Your task to perform on an android device: turn pop-ups on in chrome Image 0: 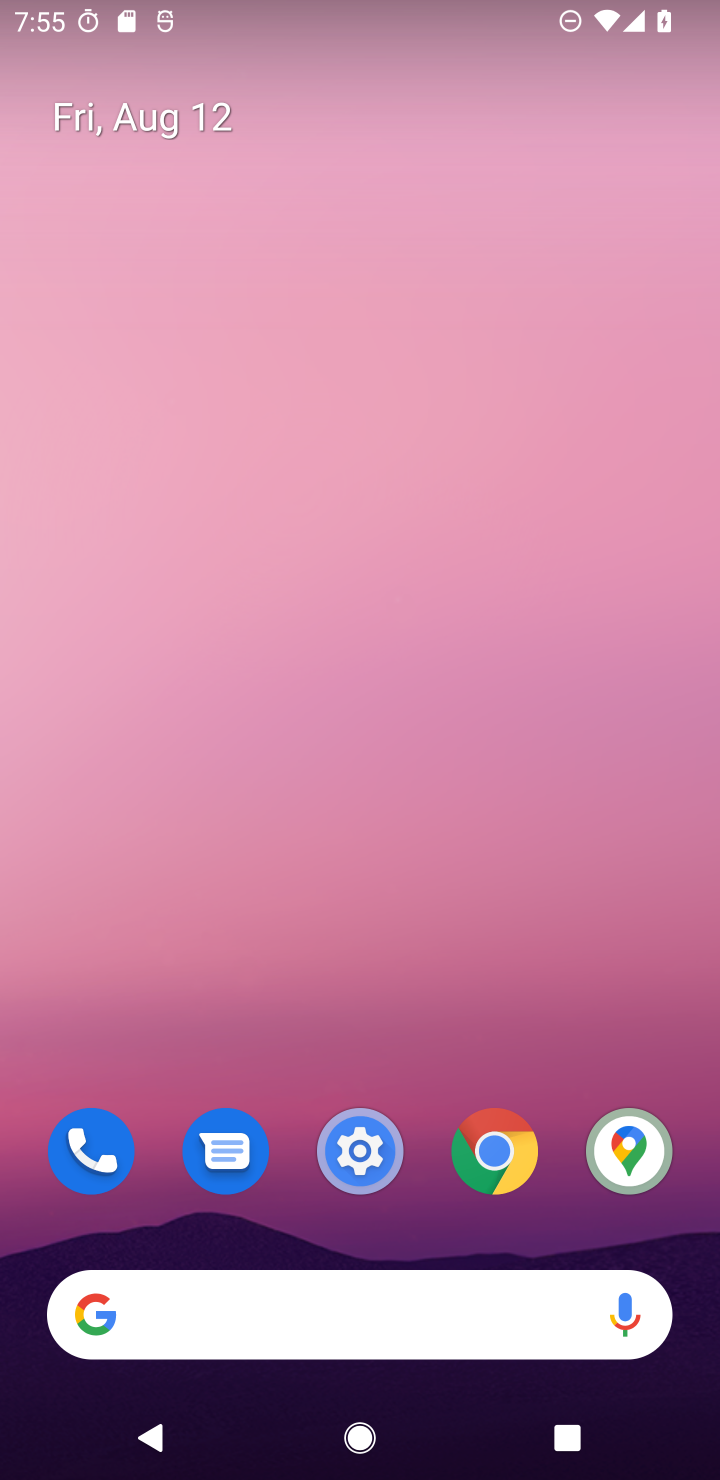
Step 0: drag from (476, 1043) to (360, 1)
Your task to perform on an android device: turn pop-ups on in chrome Image 1: 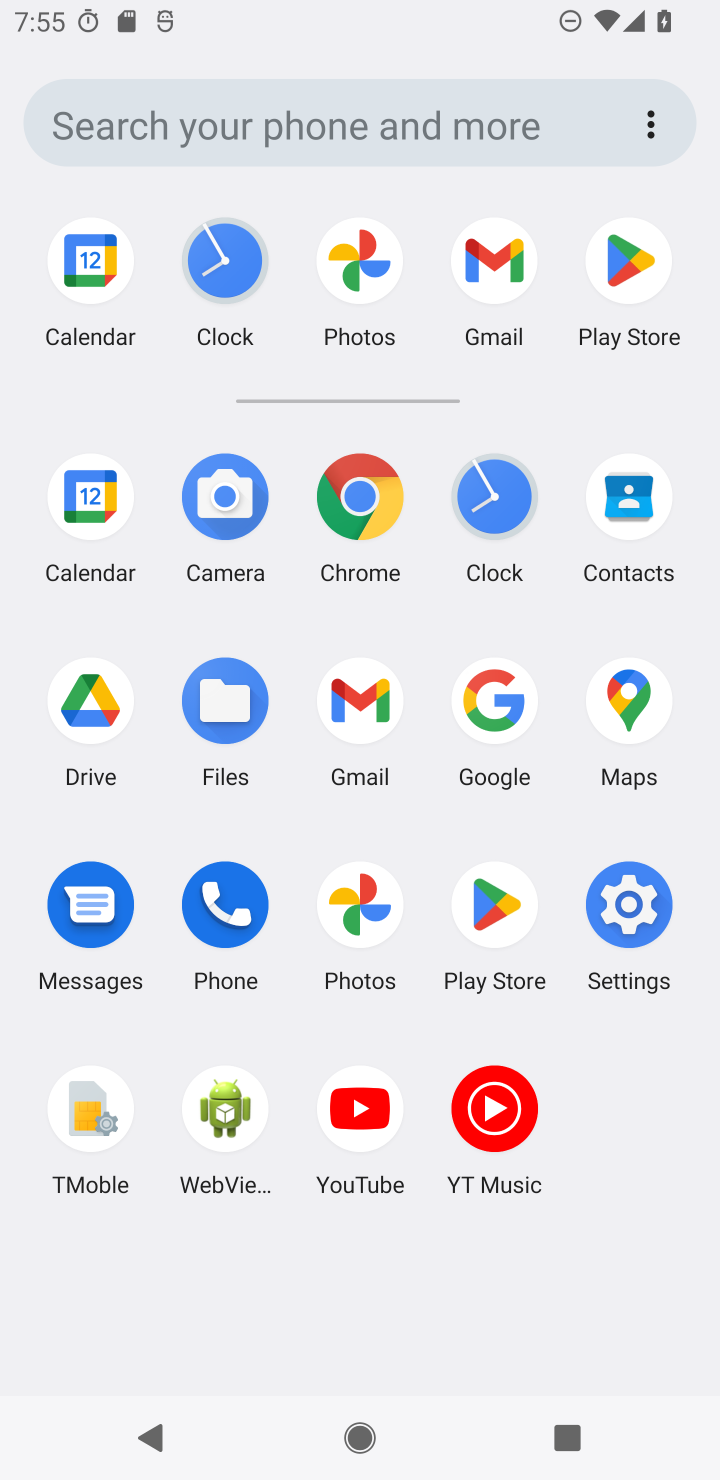
Step 1: click (354, 489)
Your task to perform on an android device: turn pop-ups on in chrome Image 2: 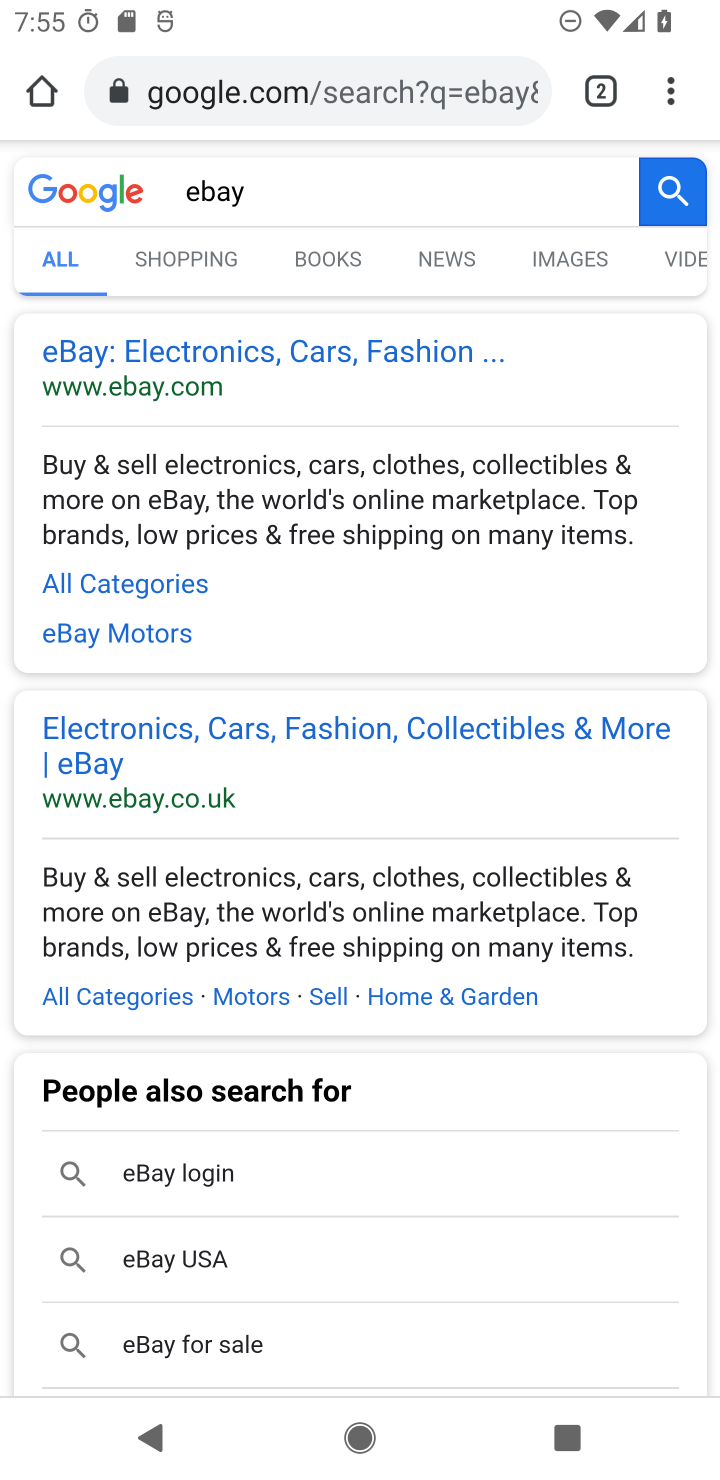
Step 2: drag from (673, 135) to (434, 1272)
Your task to perform on an android device: turn pop-ups on in chrome Image 3: 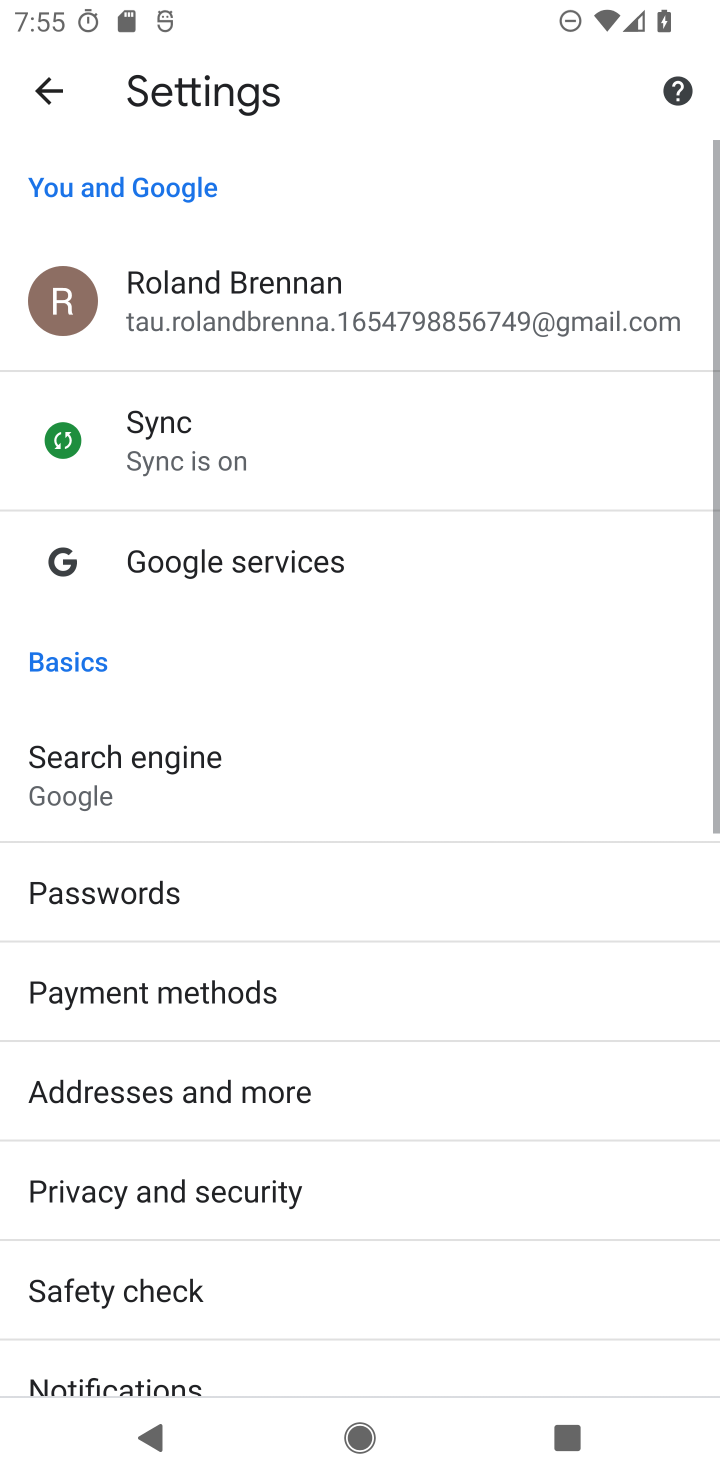
Step 3: drag from (465, 1276) to (541, 106)
Your task to perform on an android device: turn pop-ups on in chrome Image 4: 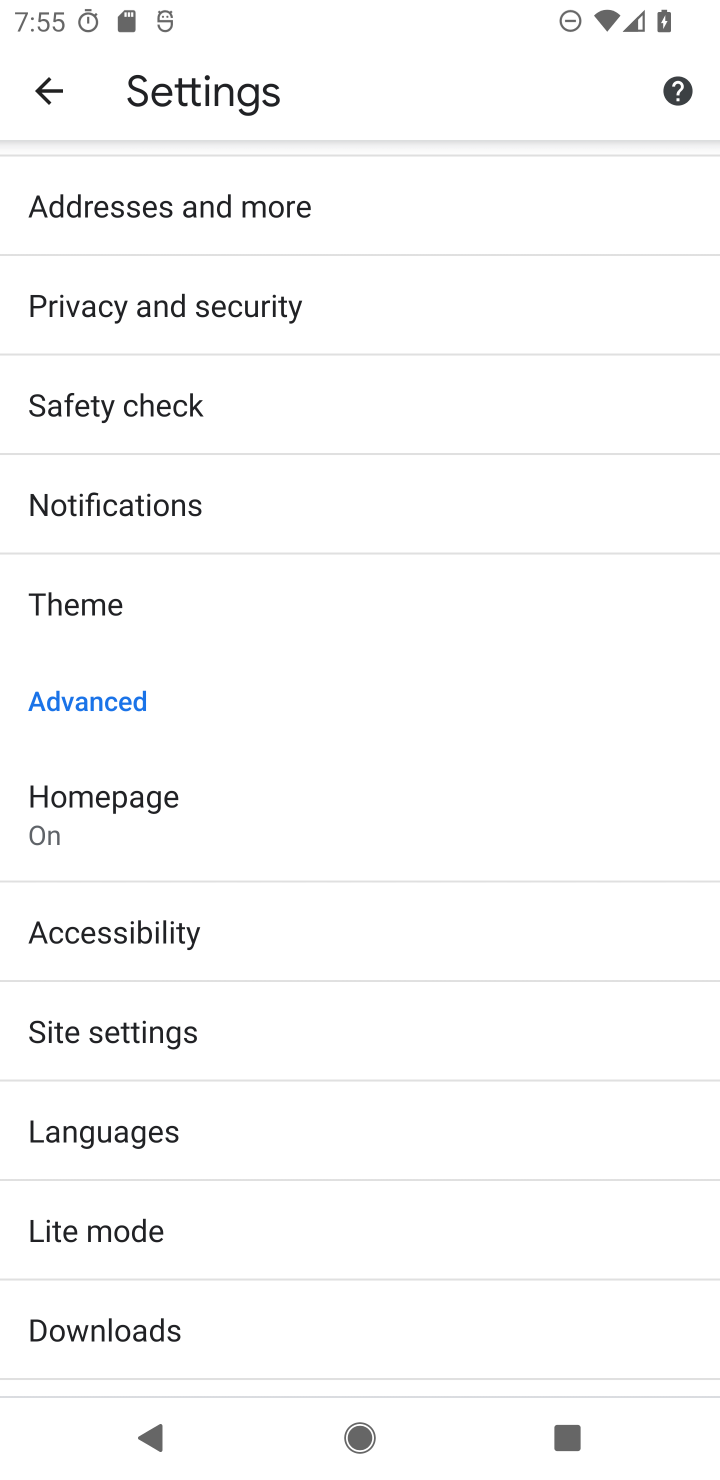
Step 4: drag from (411, 1234) to (427, 443)
Your task to perform on an android device: turn pop-ups on in chrome Image 5: 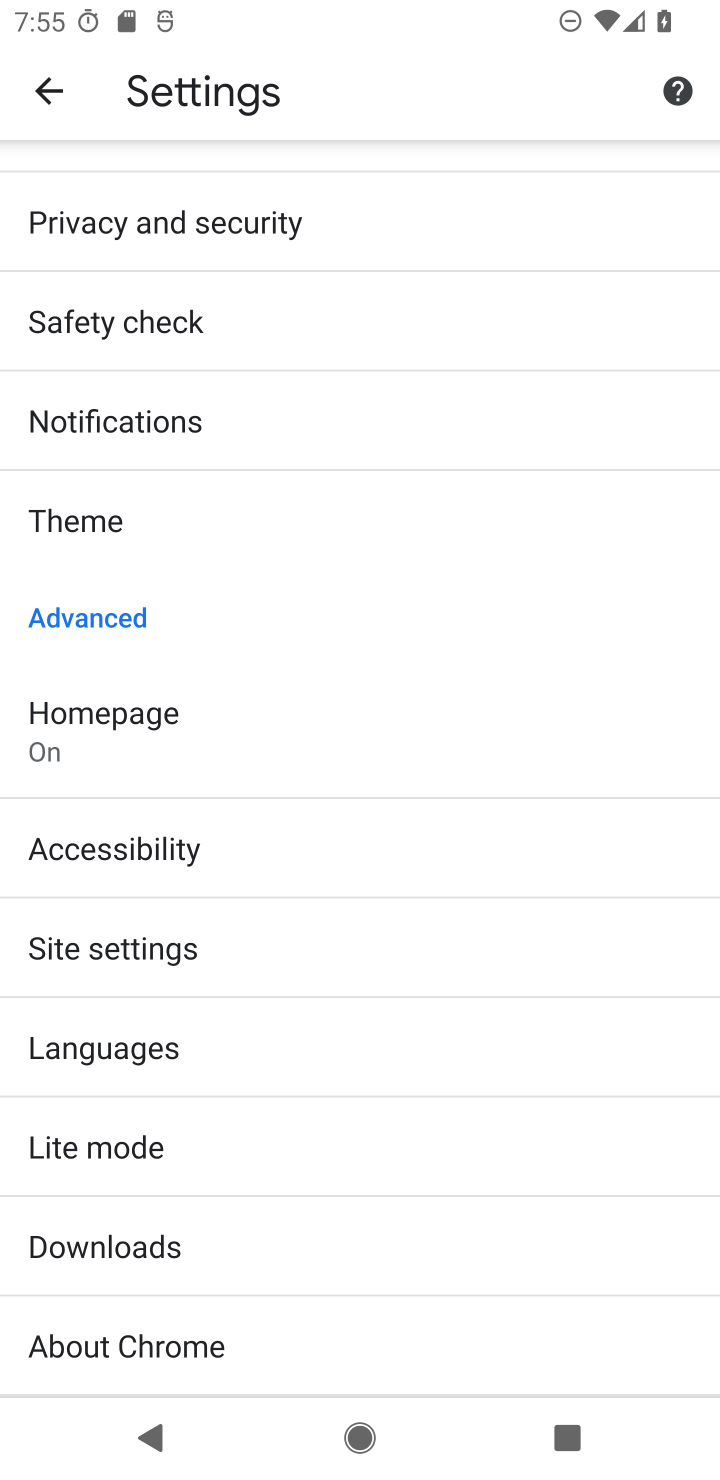
Step 5: drag from (433, 608) to (433, 864)
Your task to perform on an android device: turn pop-ups on in chrome Image 6: 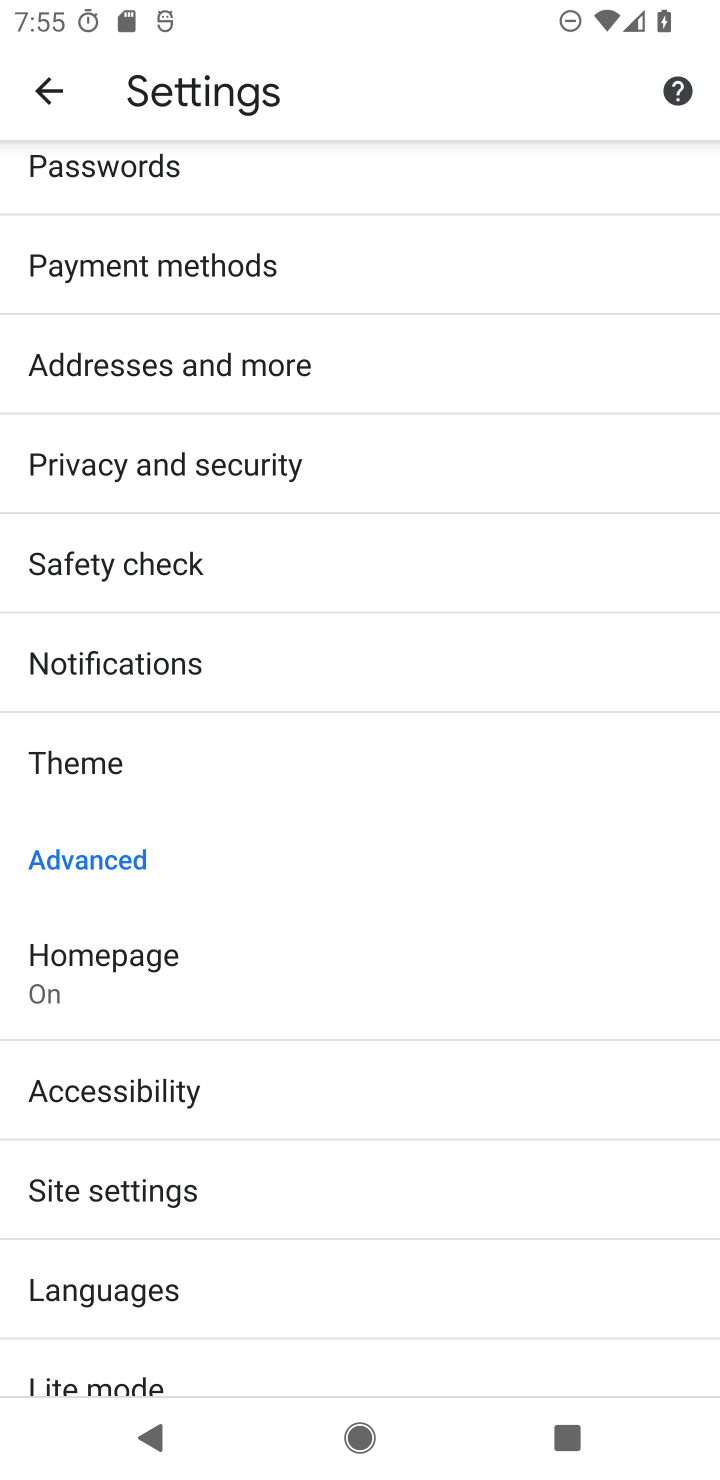
Step 6: click (153, 1203)
Your task to perform on an android device: turn pop-ups on in chrome Image 7: 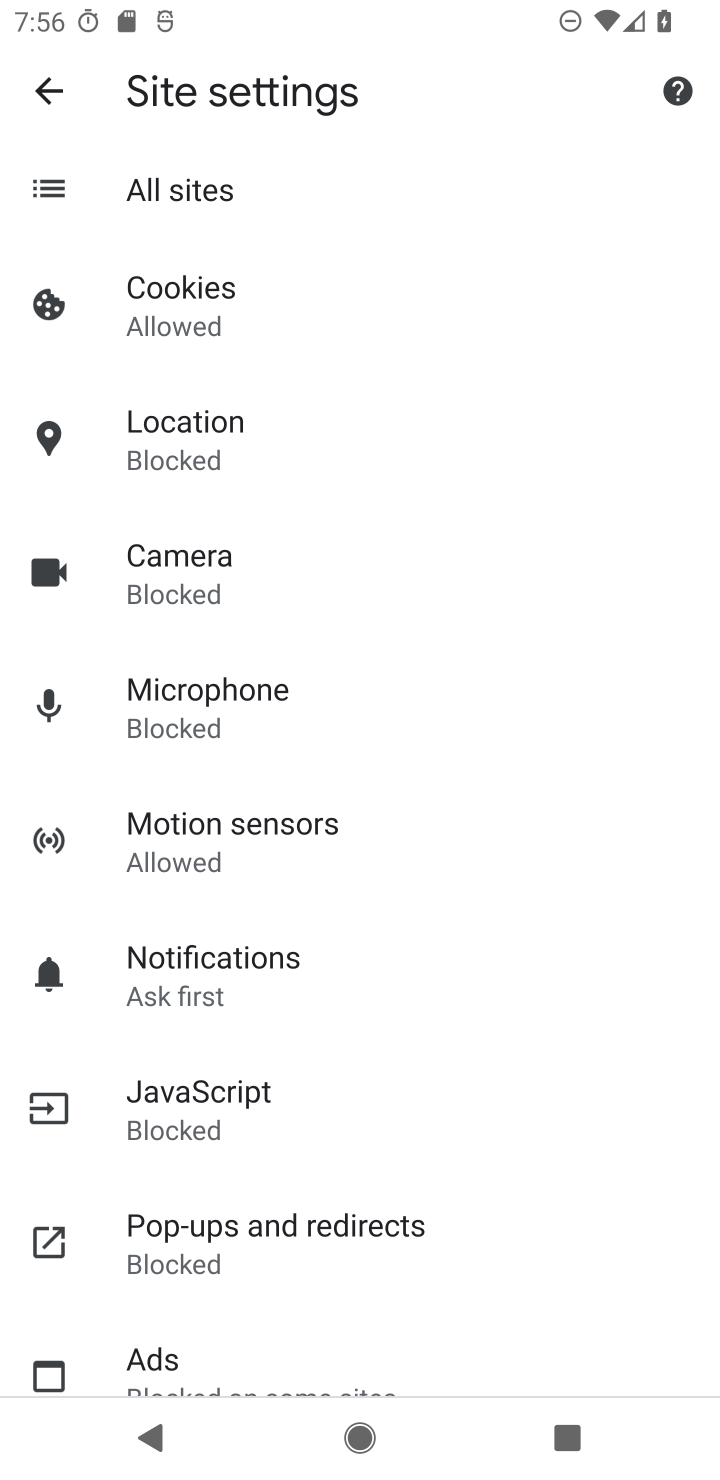
Step 7: click (229, 1251)
Your task to perform on an android device: turn pop-ups on in chrome Image 8: 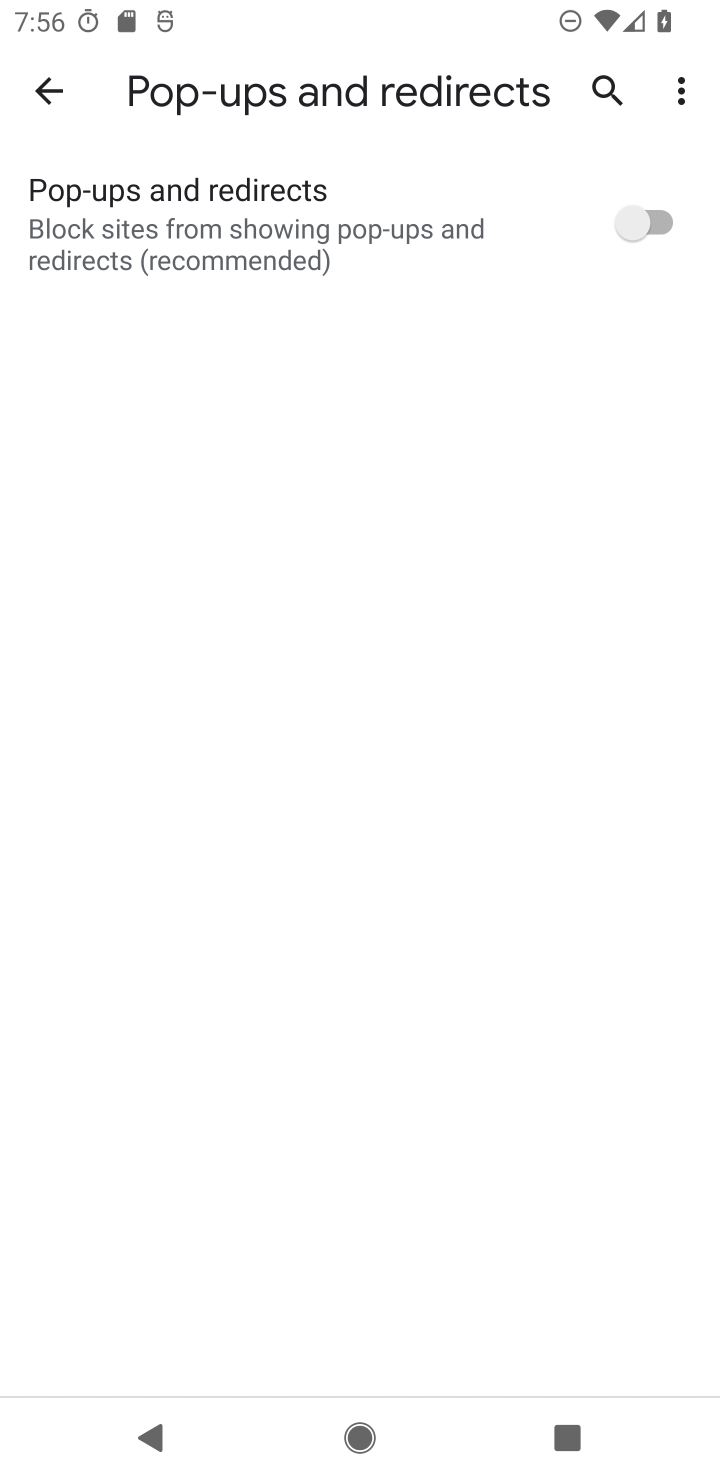
Step 8: click (611, 215)
Your task to perform on an android device: turn pop-ups on in chrome Image 9: 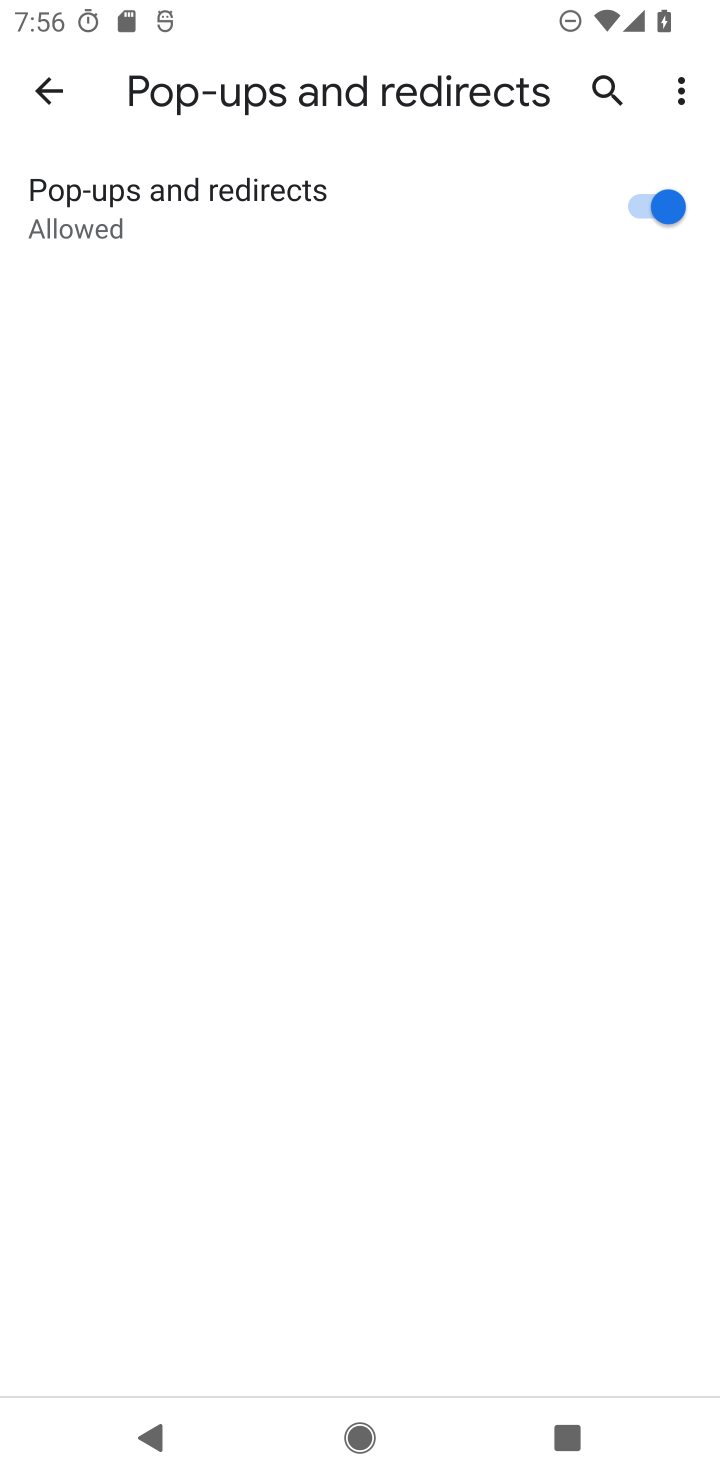
Step 9: task complete